Your task to perform on an android device: turn vacation reply on in the gmail app Image 0: 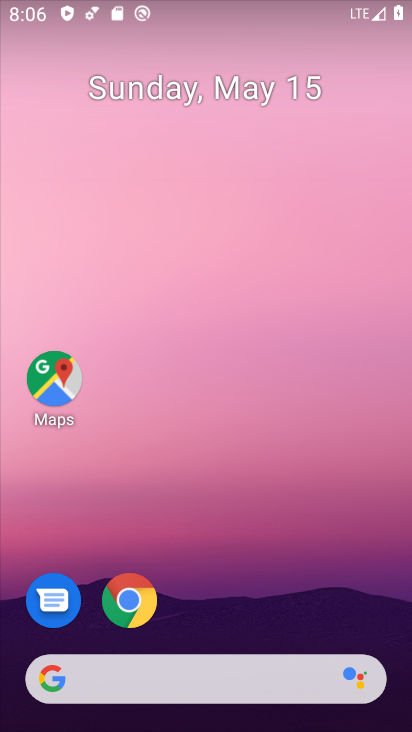
Step 0: drag from (218, 610) to (88, 130)
Your task to perform on an android device: turn vacation reply on in the gmail app Image 1: 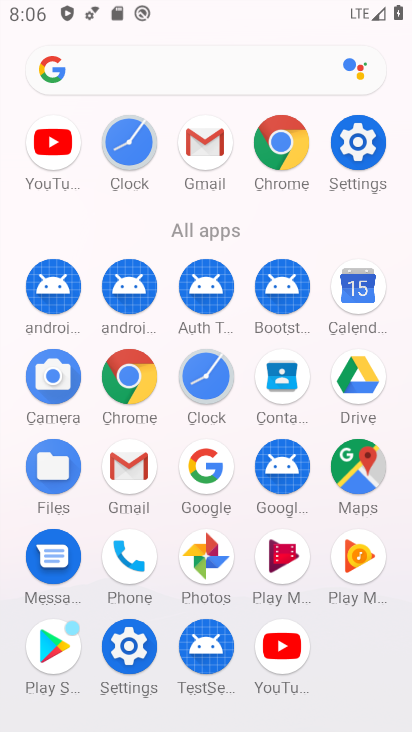
Step 1: click (209, 151)
Your task to perform on an android device: turn vacation reply on in the gmail app Image 2: 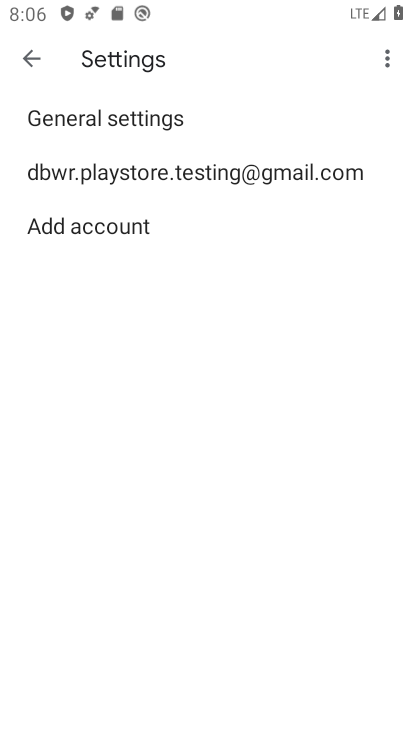
Step 2: click (181, 170)
Your task to perform on an android device: turn vacation reply on in the gmail app Image 3: 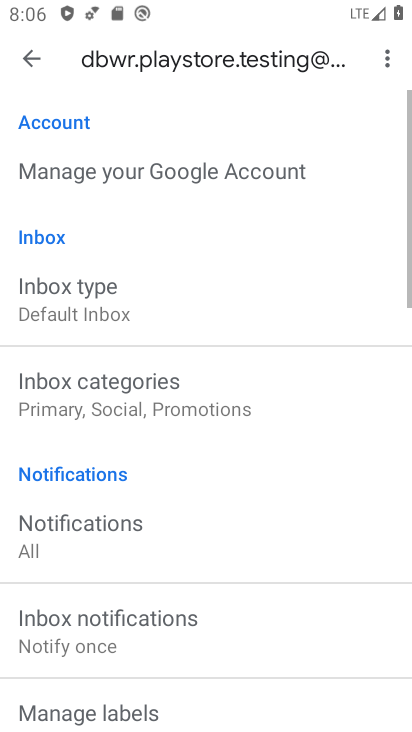
Step 3: drag from (183, 626) to (164, 107)
Your task to perform on an android device: turn vacation reply on in the gmail app Image 4: 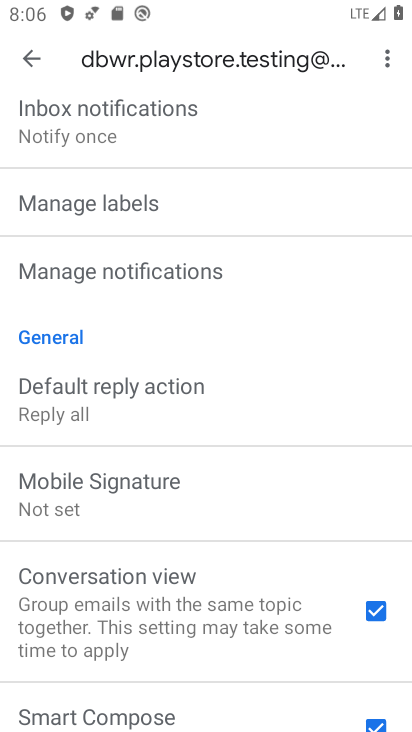
Step 4: drag from (138, 652) to (101, 344)
Your task to perform on an android device: turn vacation reply on in the gmail app Image 5: 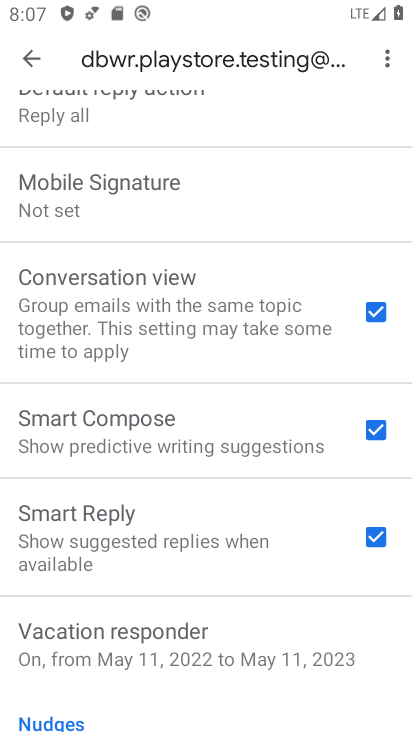
Step 5: click (123, 641)
Your task to perform on an android device: turn vacation reply on in the gmail app Image 6: 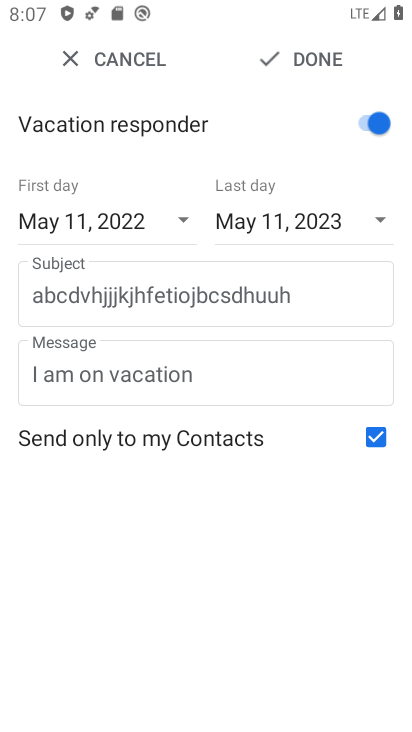
Step 6: task complete